Your task to perform on an android device: open wifi settings Image 0: 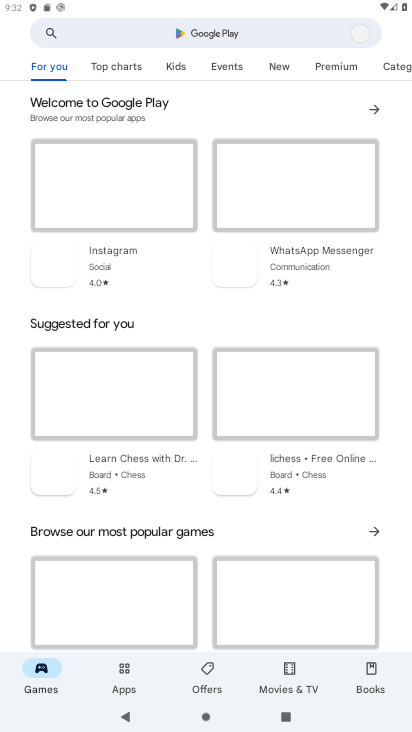
Step 0: drag from (259, 3) to (301, 562)
Your task to perform on an android device: open wifi settings Image 1: 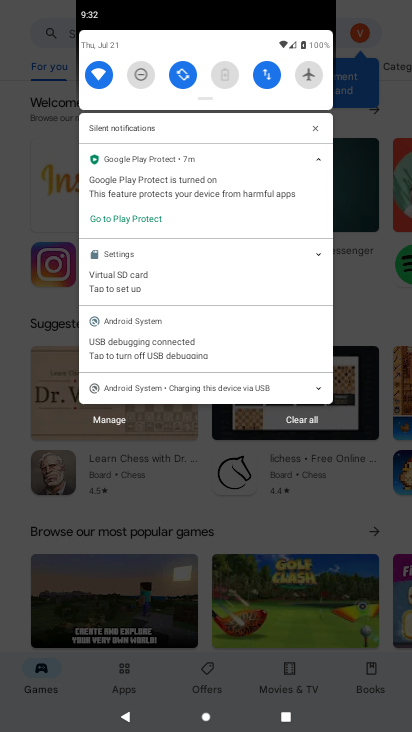
Step 1: click (95, 73)
Your task to perform on an android device: open wifi settings Image 2: 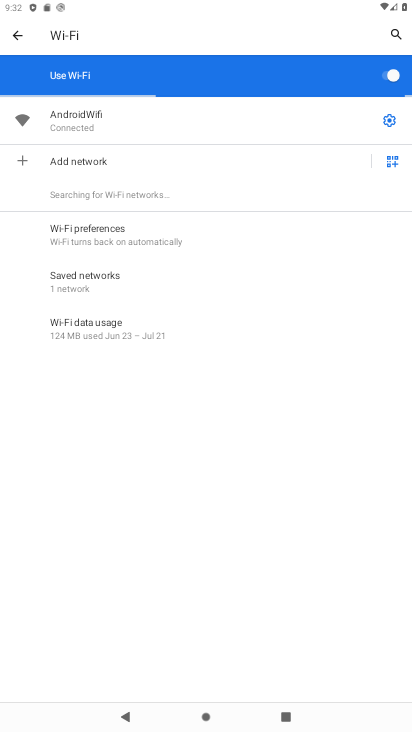
Step 2: task complete